Your task to perform on an android device: open app "PlayWell" (install if not already installed) Image 0: 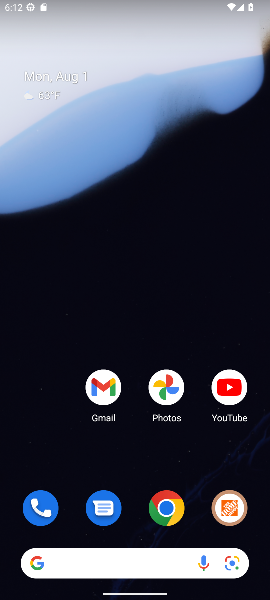
Step 0: drag from (127, 535) to (74, 78)
Your task to perform on an android device: open app "PlayWell" (install if not already installed) Image 1: 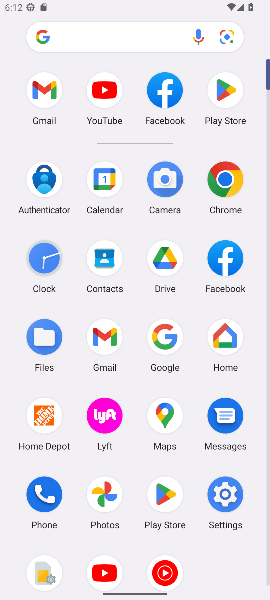
Step 1: click (165, 495)
Your task to perform on an android device: open app "PlayWell" (install if not already installed) Image 2: 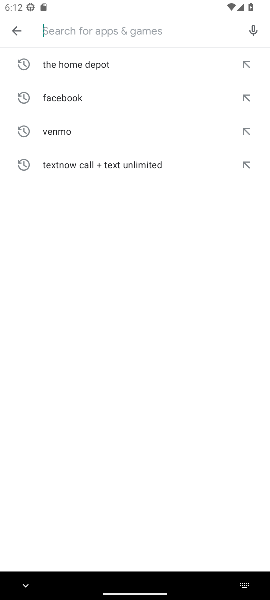
Step 2: type "PlayWell"
Your task to perform on an android device: open app "PlayWell" (install if not already installed) Image 3: 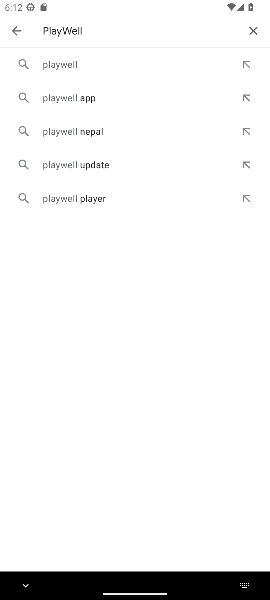
Step 3: click (69, 68)
Your task to perform on an android device: open app "PlayWell" (install if not already installed) Image 4: 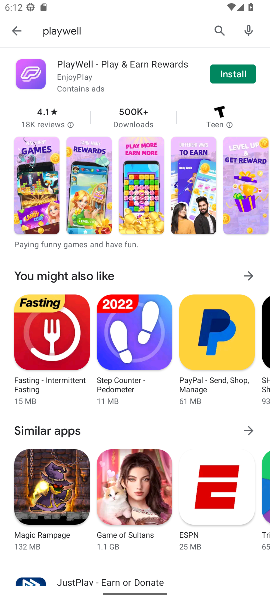
Step 4: click (154, 77)
Your task to perform on an android device: open app "PlayWell" (install if not already installed) Image 5: 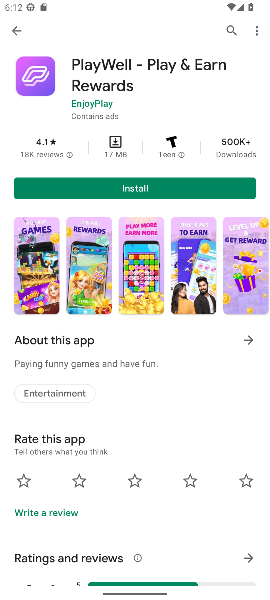
Step 5: click (182, 179)
Your task to perform on an android device: open app "PlayWell" (install if not already installed) Image 6: 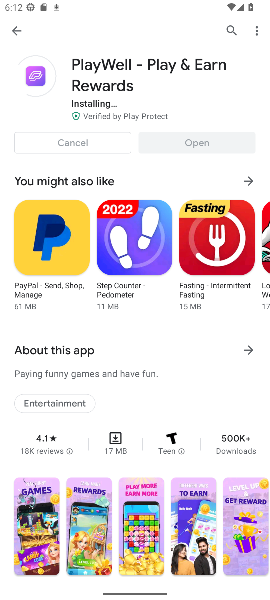
Step 6: task complete